Your task to perform on an android device: open device folders in google photos Image 0: 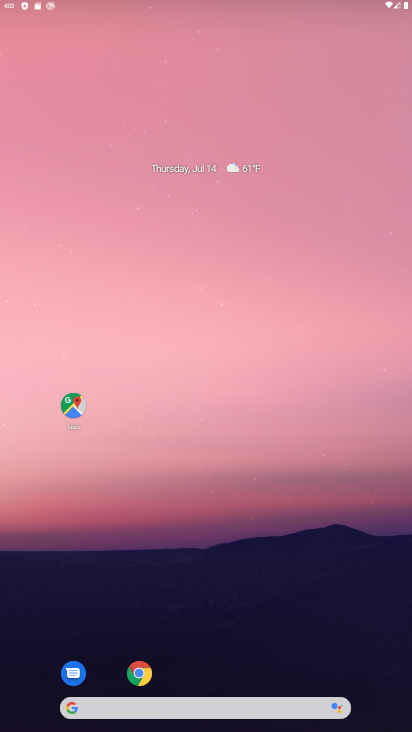
Step 0: drag from (217, 682) to (139, 162)
Your task to perform on an android device: open device folders in google photos Image 1: 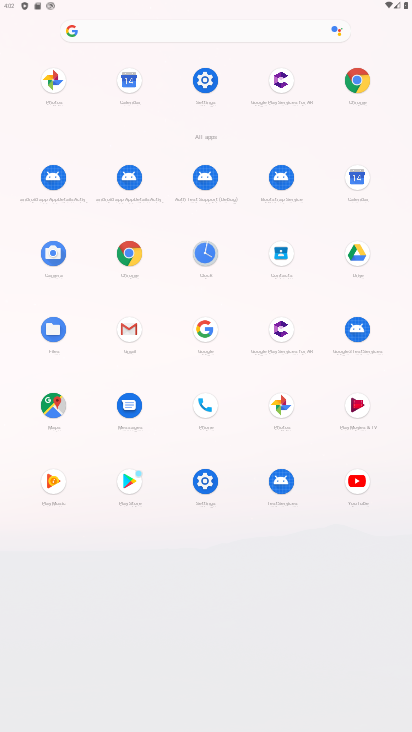
Step 1: click (287, 412)
Your task to perform on an android device: open device folders in google photos Image 2: 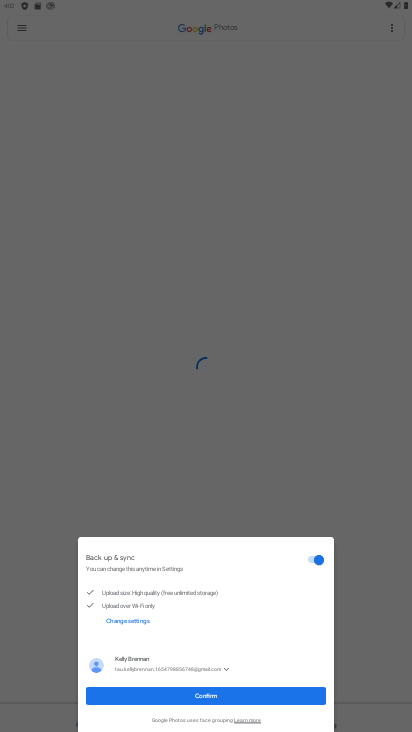
Step 2: click (207, 708)
Your task to perform on an android device: open device folders in google photos Image 3: 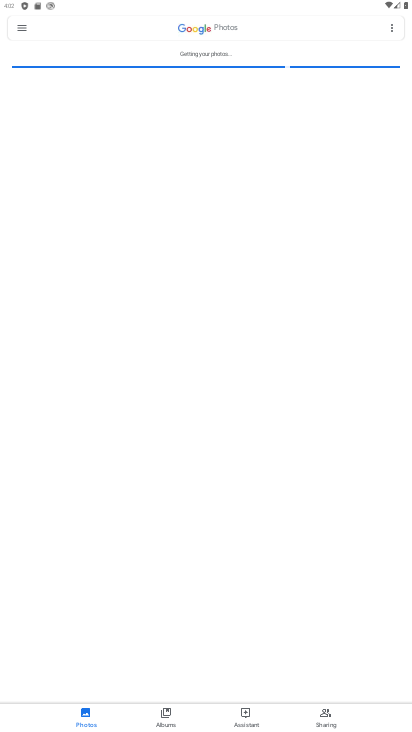
Step 3: click (21, 30)
Your task to perform on an android device: open device folders in google photos Image 4: 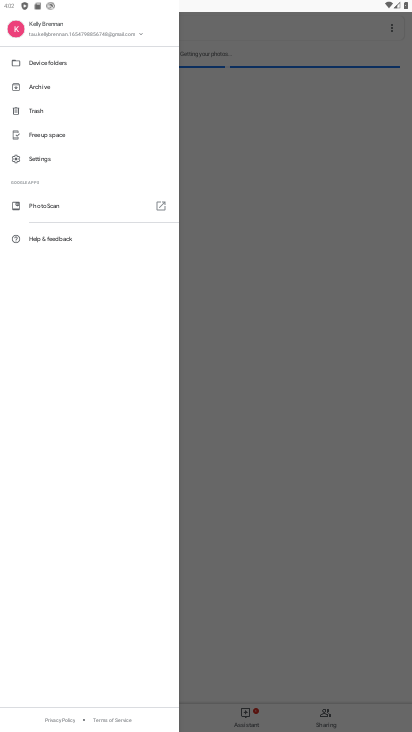
Step 4: click (21, 30)
Your task to perform on an android device: open device folders in google photos Image 5: 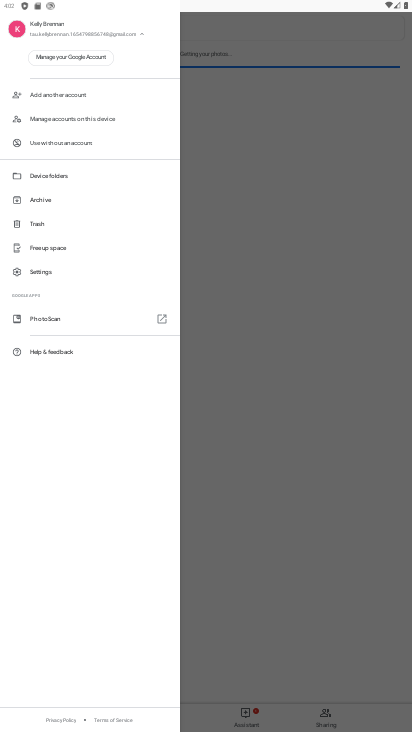
Step 5: click (59, 175)
Your task to perform on an android device: open device folders in google photos Image 6: 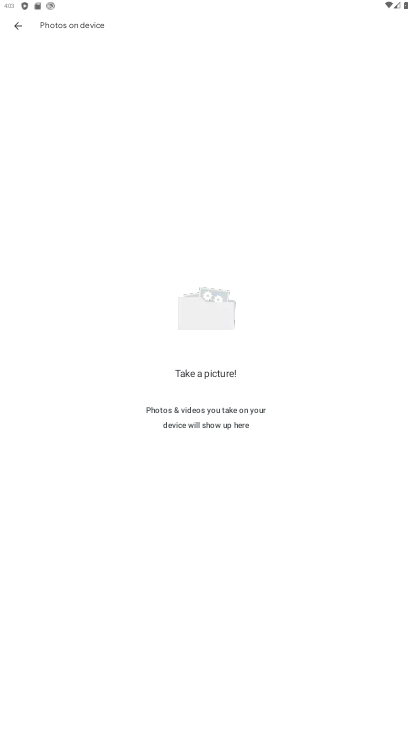
Step 6: task complete